Your task to perform on an android device: turn off notifications settings in the gmail app Image 0: 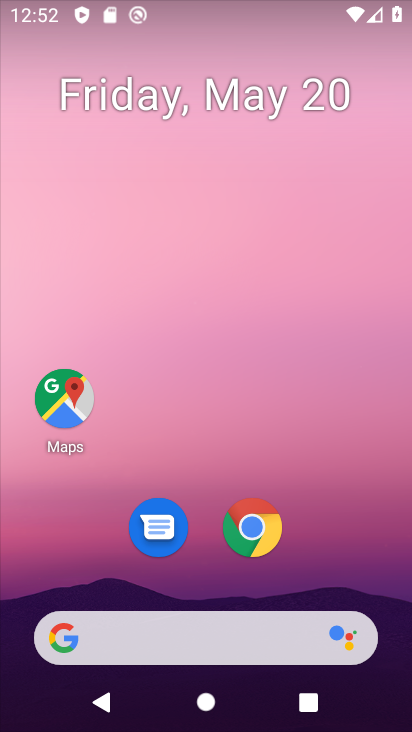
Step 0: drag from (267, 411) to (277, 0)
Your task to perform on an android device: turn off notifications settings in the gmail app Image 1: 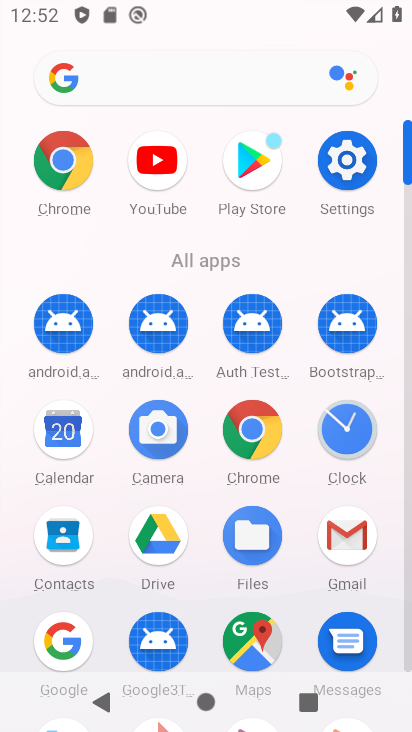
Step 1: click (343, 528)
Your task to perform on an android device: turn off notifications settings in the gmail app Image 2: 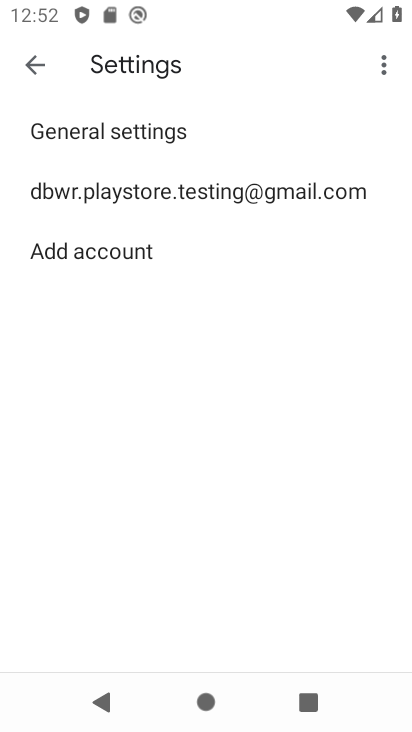
Step 2: click (187, 186)
Your task to perform on an android device: turn off notifications settings in the gmail app Image 3: 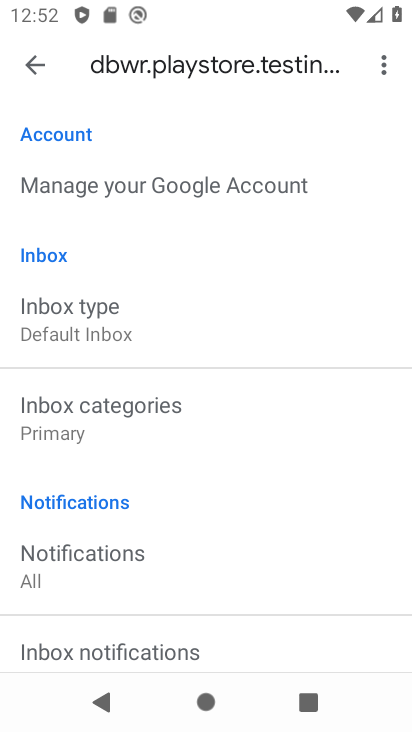
Step 3: drag from (216, 496) to (233, 112)
Your task to perform on an android device: turn off notifications settings in the gmail app Image 4: 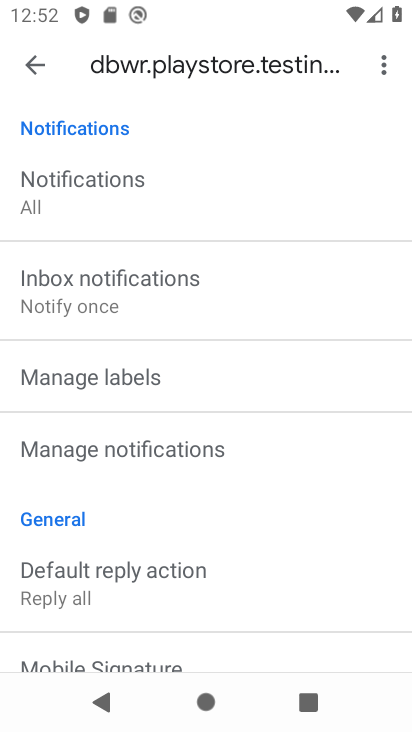
Step 4: click (234, 454)
Your task to perform on an android device: turn off notifications settings in the gmail app Image 5: 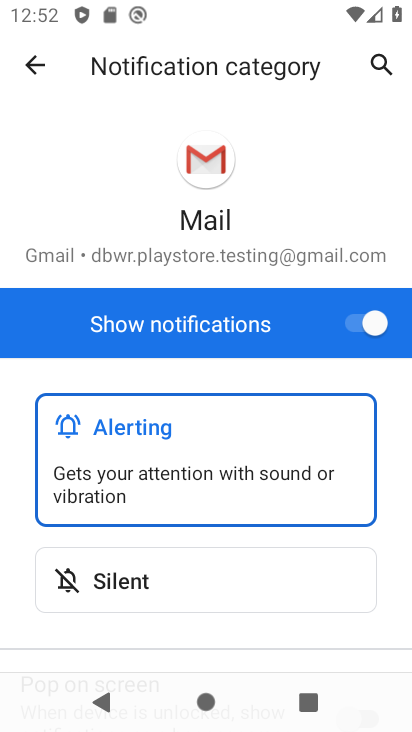
Step 5: click (348, 319)
Your task to perform on an android device: turn off notifications settings in the gmail app Image 6: 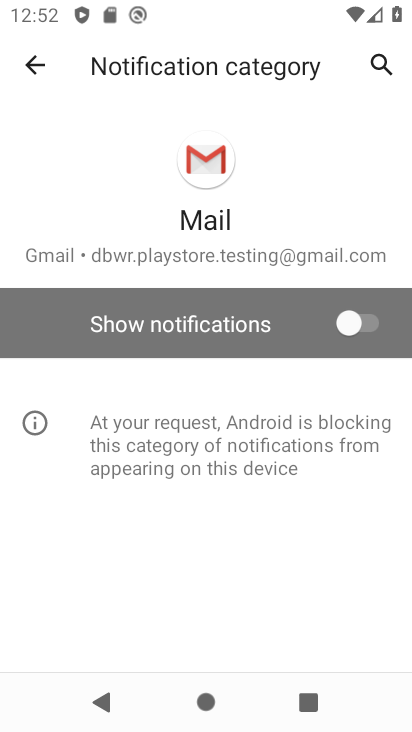
Step 6: task complete